Your task to perform on an android device: Open notification settings Image 0: 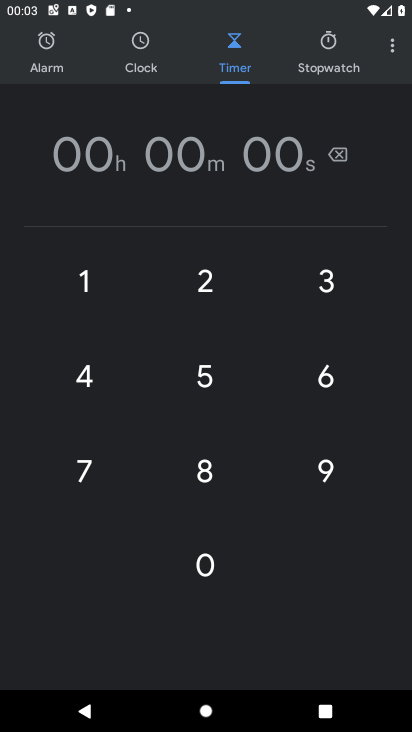
Step 0: press home button
Your task to perform on an android device: Open notification settings Image 1: 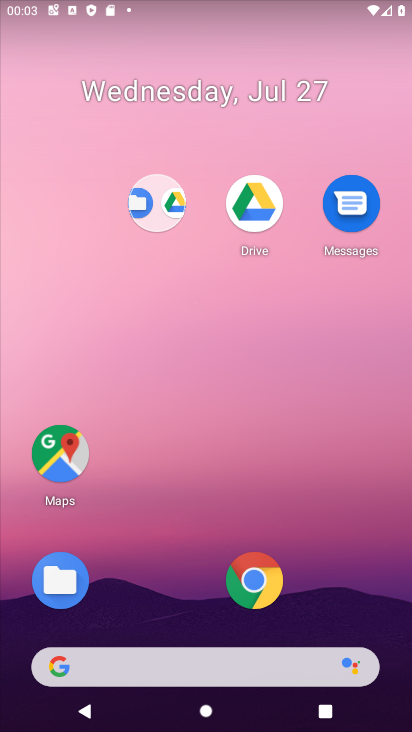
Step 1: drag from (151, 605) to (202, 64)
Your task to perform on an android device: Open notification settings Image 2: 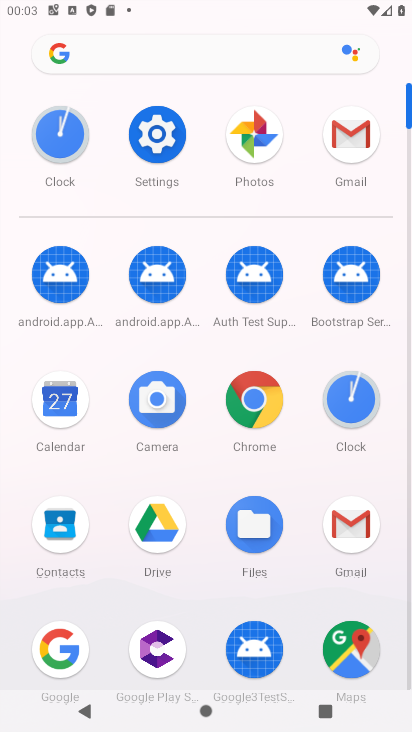
Step 2: click (153, 118)
Your task to perform on an android device: Open notification settings Image 3: 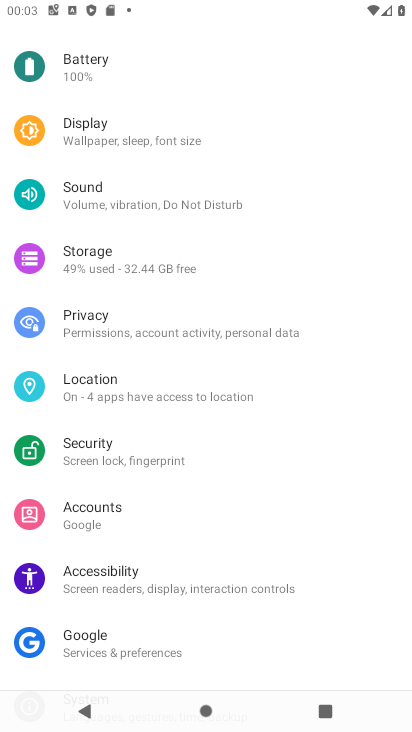
Step 3: drag from (107, 116) to (99, 598)
Your task to perform on an android device: Open notification settings Image 4: 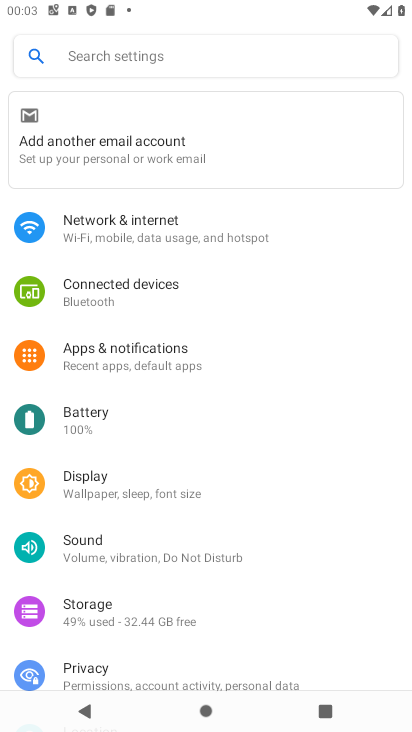
Step 4: click (135, 356)
Your task to perform on an android device: Open notification settings Image 5: 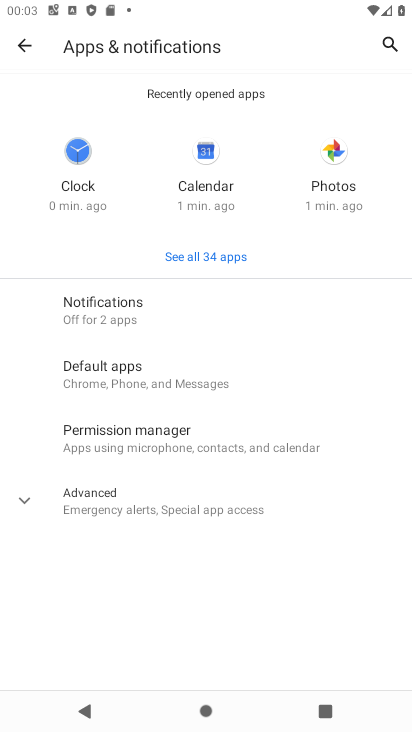
Step 5: task complete